Your task to perform on an android device: turn notification dots on Image 0: 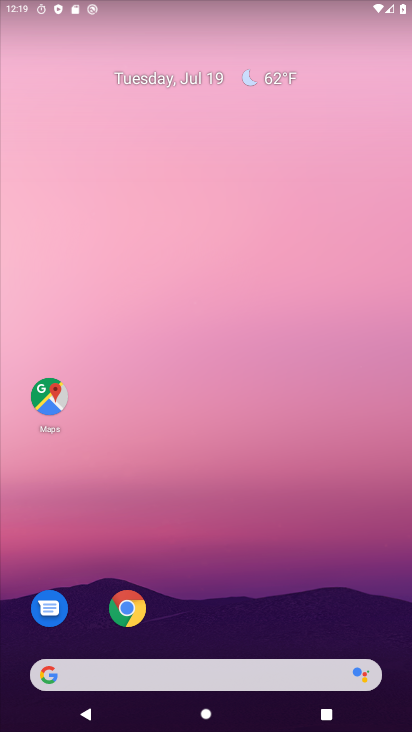
Step 0: press home button
Your task to perform on an android device: turn notification dots on Image 1: 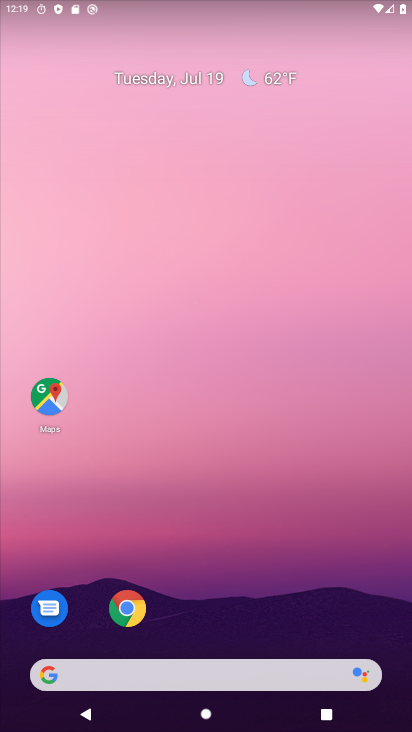
Step 1: drag from (219, 645) to (258, 0)
Your task to perform on an android device: turn notification dots on Image 2: 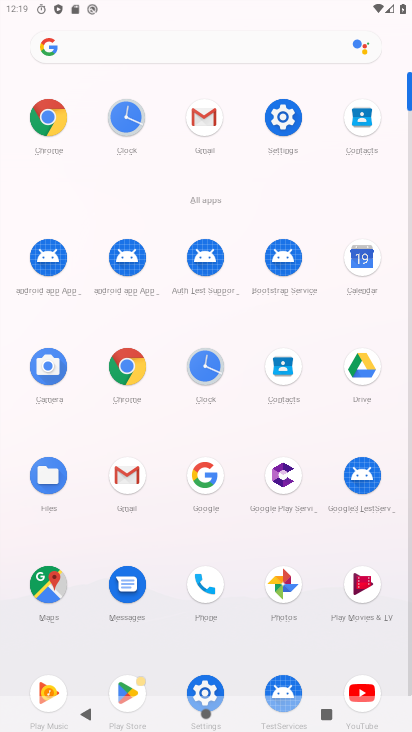
Step 2: click (279, 110)
Your task to perform on an android device: turn notification dots on Image 3: 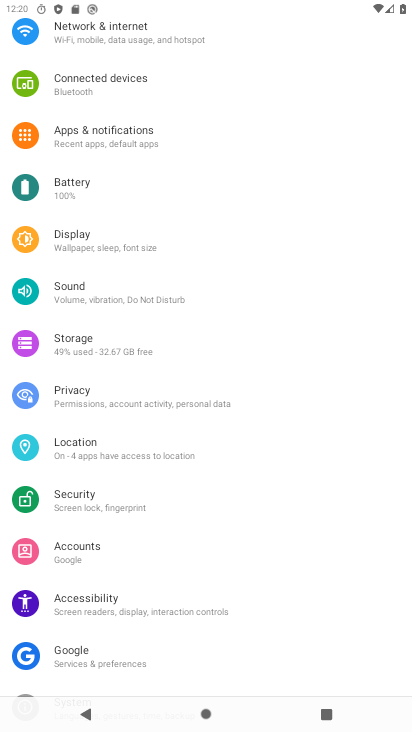
Step 3: click (165, 135)
Your task to perform on an android device: turn notification dots on Image 4: 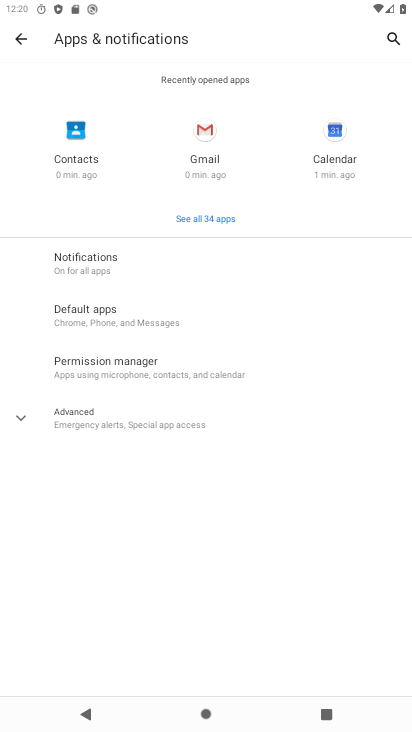
Step 4: click (126, 259)
Your task to perform on an android device: turn notification dots on Image 5: 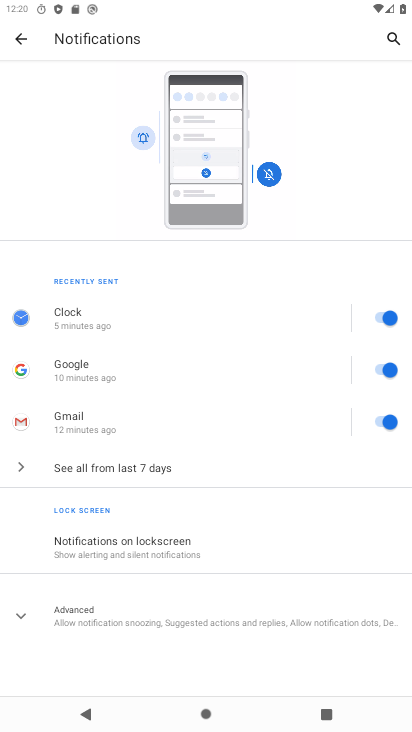
Step 5: click (24, 611)
Your task to perform on an android device: turn notification dots on Image 6: 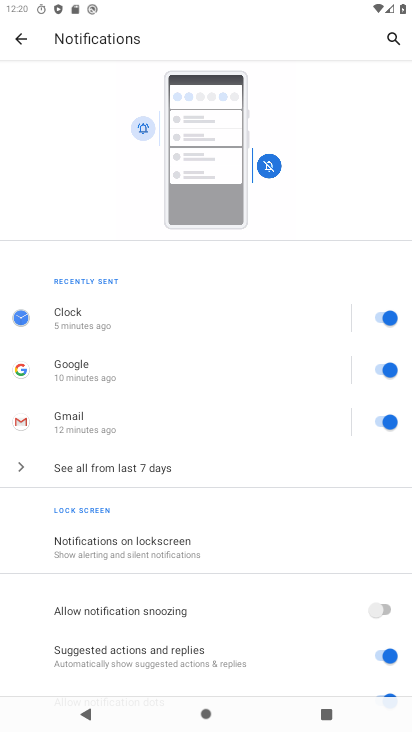
Step 6: task complete